Your task to perform on an android device: change notification settings in the gmail app Image 0: 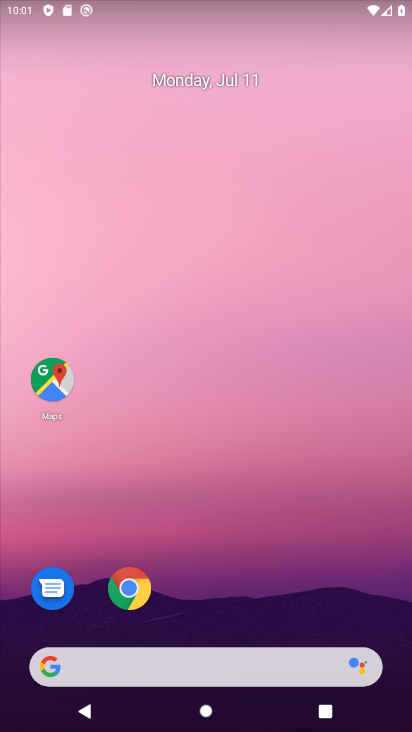
Step 0: drag from (230, 600) to (187, 93)
Your task to perform on an android device: change notification settings in the gmail app Image 1: 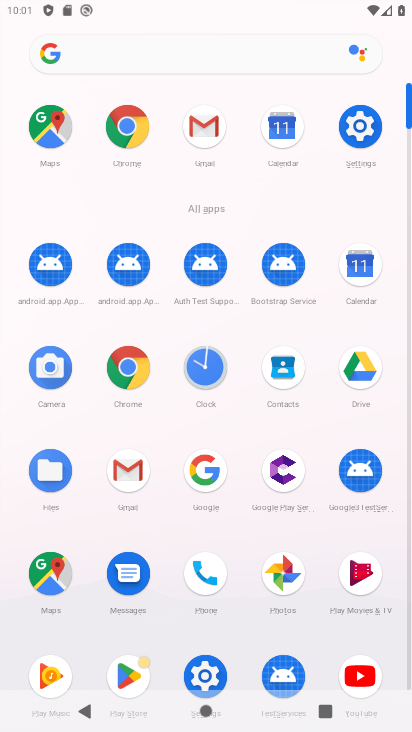
Step 1: click (133, 481)
Your task to perform on an android device: change notification settings in the gmail app Image 2: 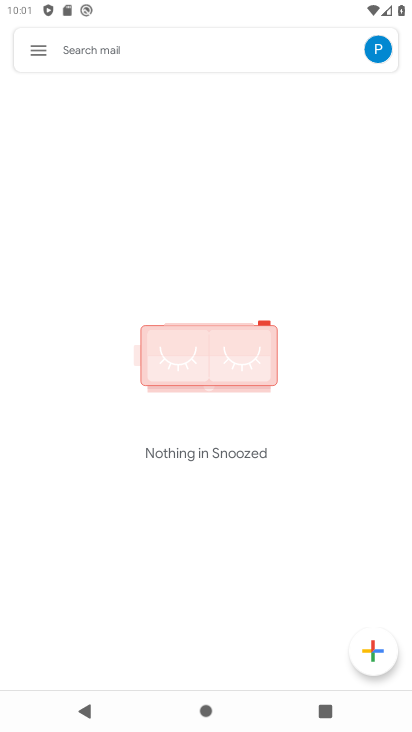
Step 2: click (33, 42)
Your task to perform on an android device: change notification settings in the gmail app Image 3: 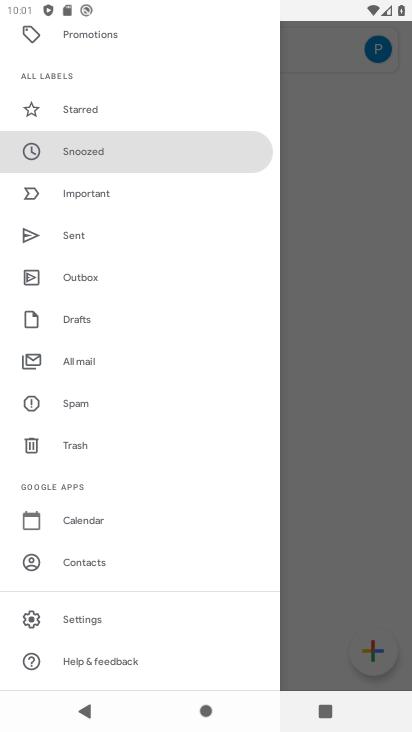
Step 3: click (92, 618)
Your task to perform on an android device: change notification settings in the gmail app Image 4: 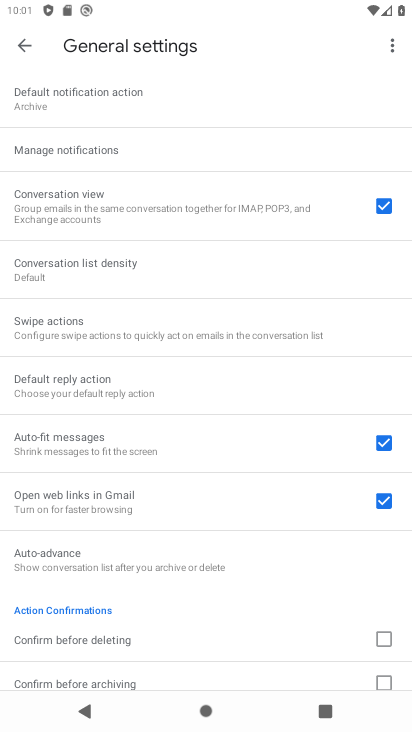
Step 4: click (84, 154)
Your task to perform on an android device: change notification settings in the gmail app Image 5: 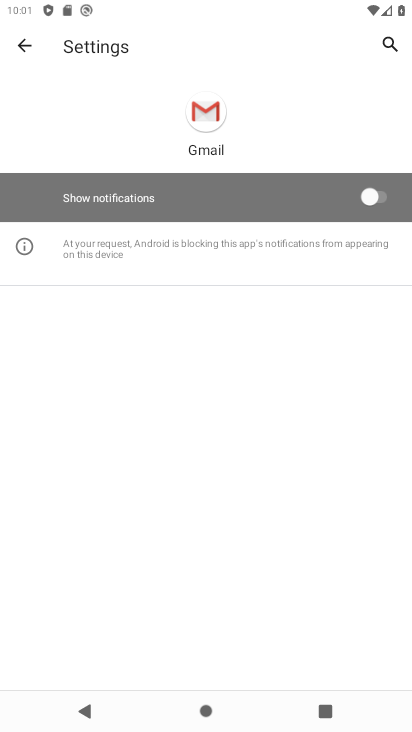
Step 5: click (388, 195)
Your task to perform on an android device: change notification settings in the gmail app Image 6: 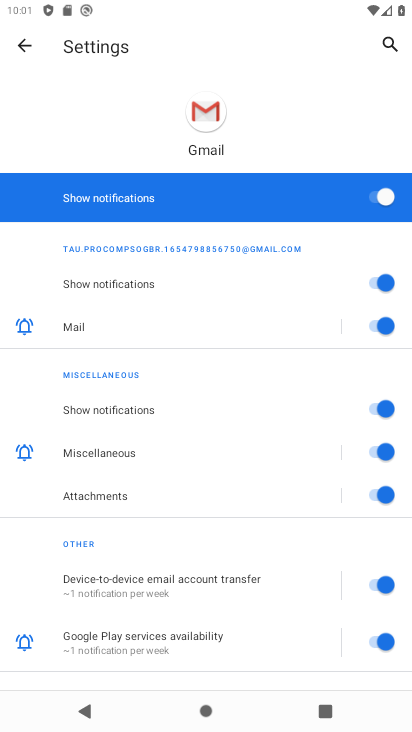
Step 6: task complete